Your task to perform on an android device: remove spam from my inbox in the gmail app Image 0: 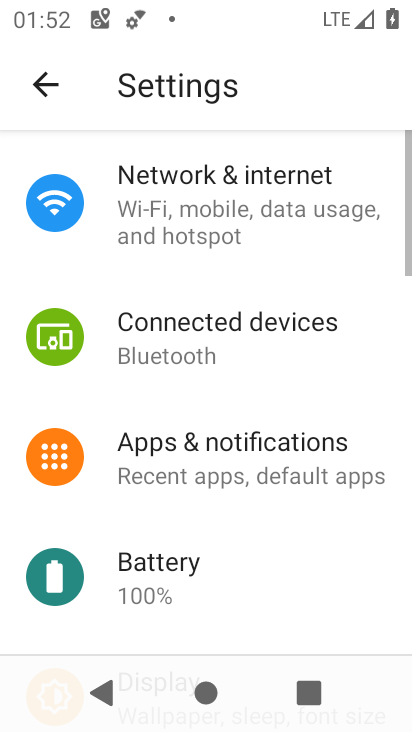
Step 0: press home button
Your task to perform on an android device: remove spam from my inbox in the gmail app Image 1: 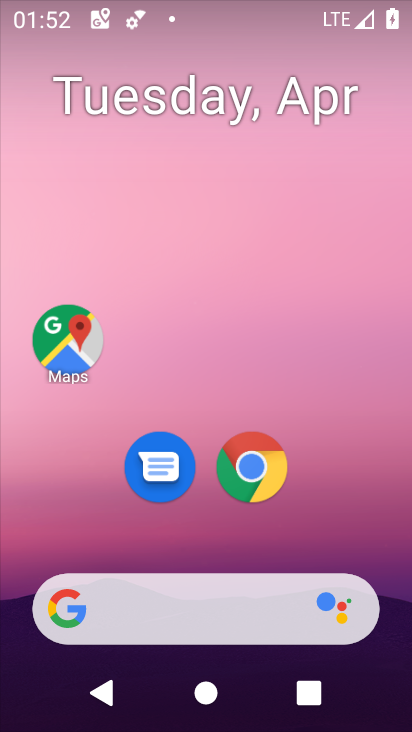
Step 1: drag from (378, 543) to (367, 156)
Your task to perform on an android device: remove spam from my inbox in the gmail app Image 2: 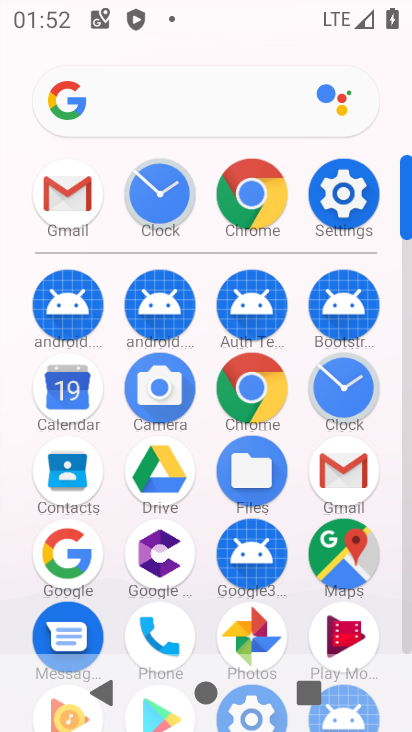
Step 2: click (344, 473)
Your task to perform on an android device: remove spam from my inbox in the gmail app Image 3: 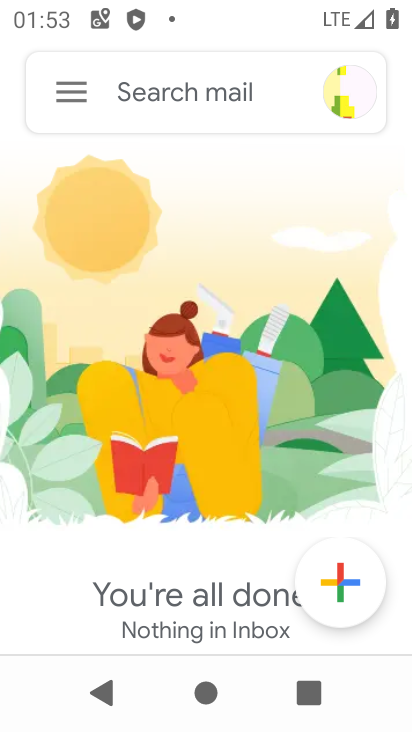
Step 3: click (68, 89)
Your task to perform on an android device: remove spam from my inbox in the gmail app Image 4: 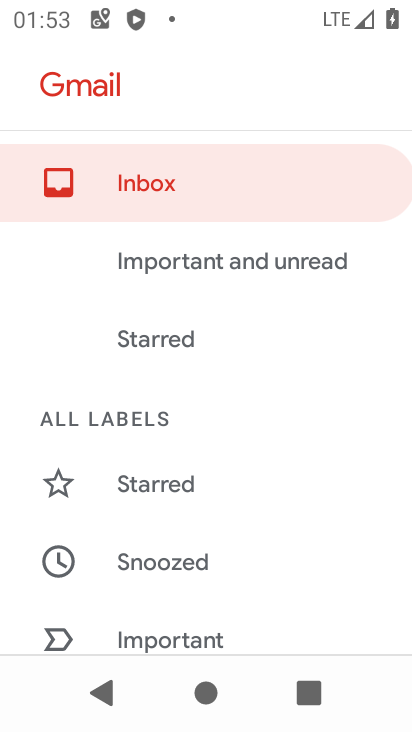
Step 4: drag from (341, 555) to (336, 369)
Your task to perform on an android device: remove spam from my inbox in the gmail app Image 5: 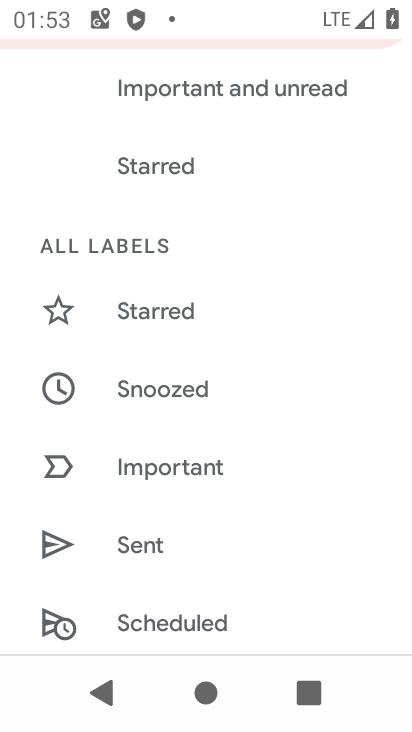
Step 5: drag from (332, 581) to (333, 389)
Your task to perform on an android device: remove spam from my inbox in the gmail app Image 6: 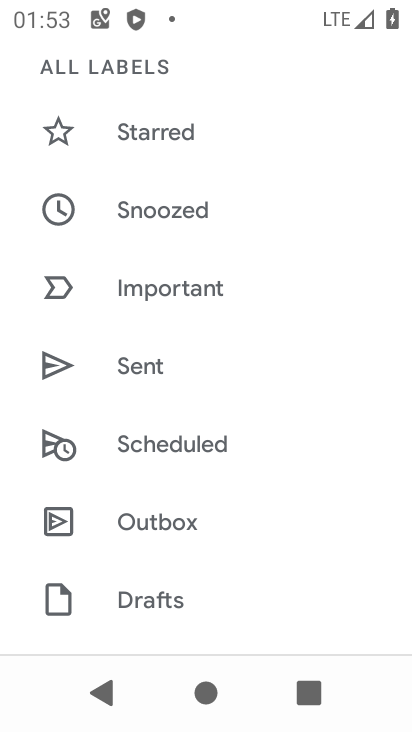
Step 6: drag from (333, 564) to (317, 383)
Your task to perform on an android device: remove spam from my inbox in the gmail app Image 7: 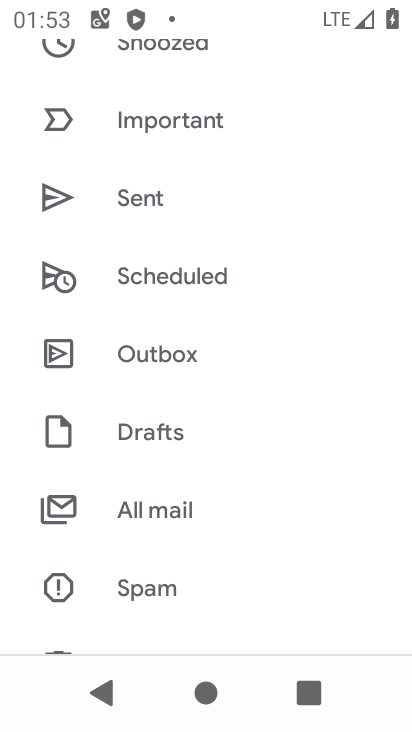
Step 7: drag from (324, 593) to (317, 384)
Your task to perform on an android device: remove spam from my inbox in the gmail app Image 8: 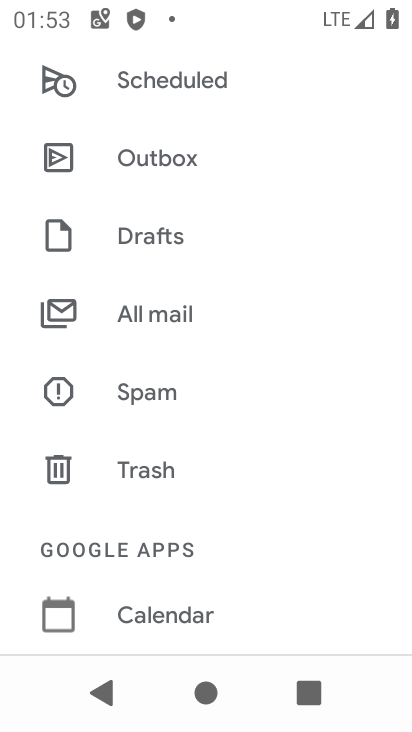
Step 8: drag from (322, 570) to (314, 425)
Your task to perform on an android device: remove spam from my inbox in the gmail app Image 9: 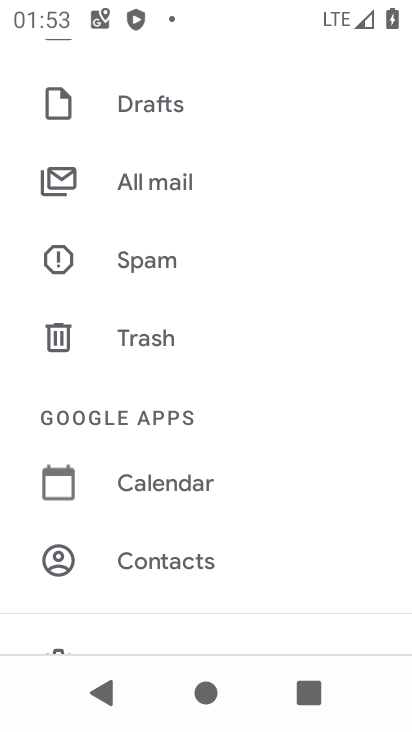
Step 9: click (153, 261)
Your task to perform on an android device: remove spam from my inbox in the gmail app Image 10: 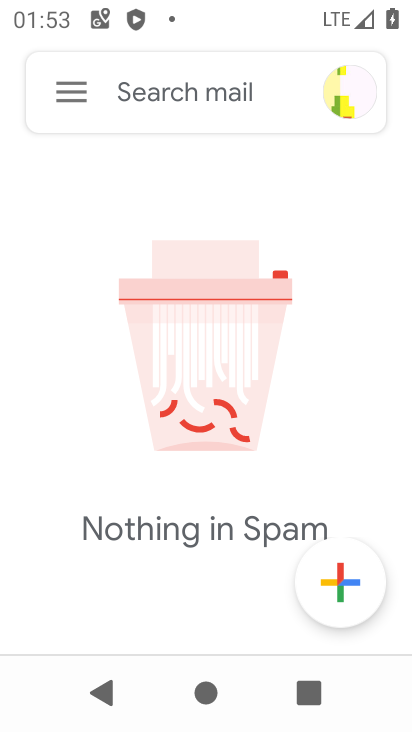
Step 10: task complete